Your task to perform on an android device: set default search engine in the chrome app Image 0: 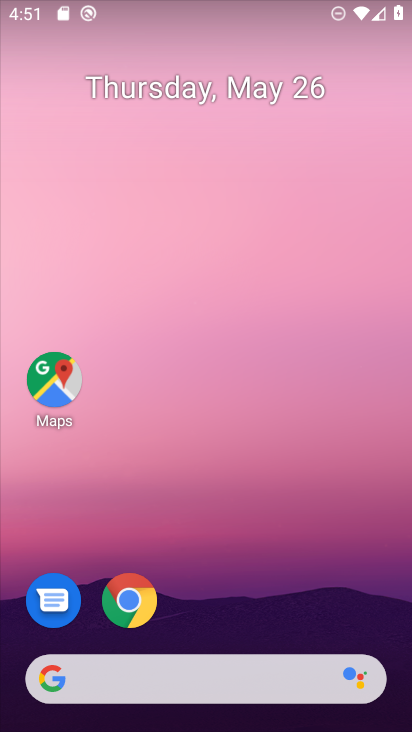
Step 0: click (124, 602)
Your task to perform on an android device: set default search engine in the chrome app Image 1: 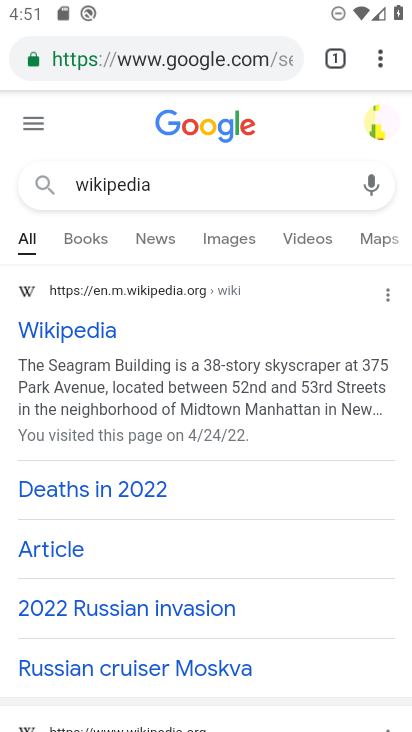
Step 1: click (376, 60)
Your task to perform on an android device: set default search engine in the chrome app Image 2: 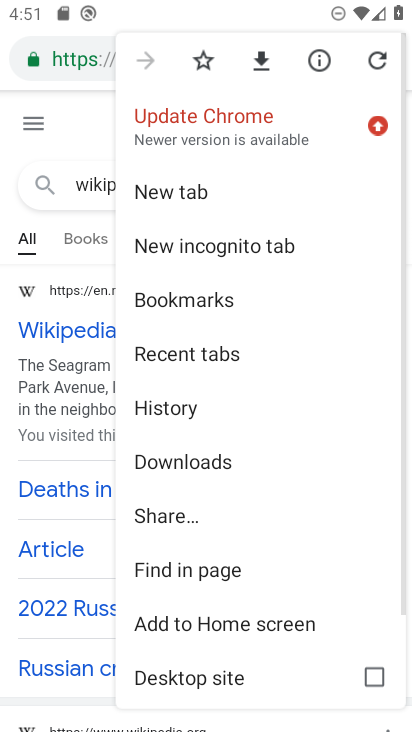
Step 2: drag from (179, 642) to (236, 334)
Your task to perform on an android device: set default search engine in the chrome app Image 3: 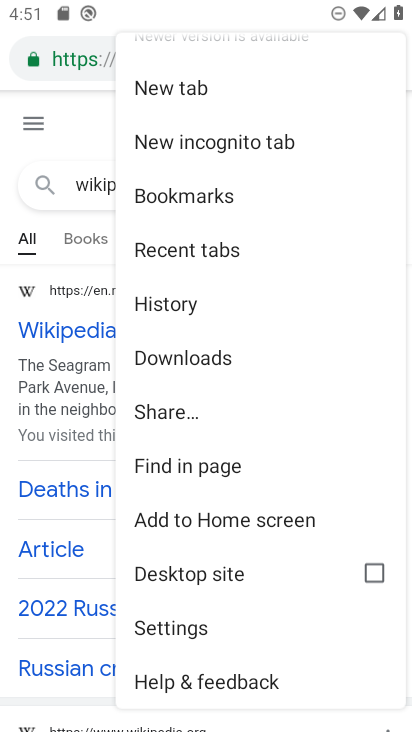
Step 3: click (192, 632)
Your task to perform on an android device: set default search engine in the chrome app Image 4: 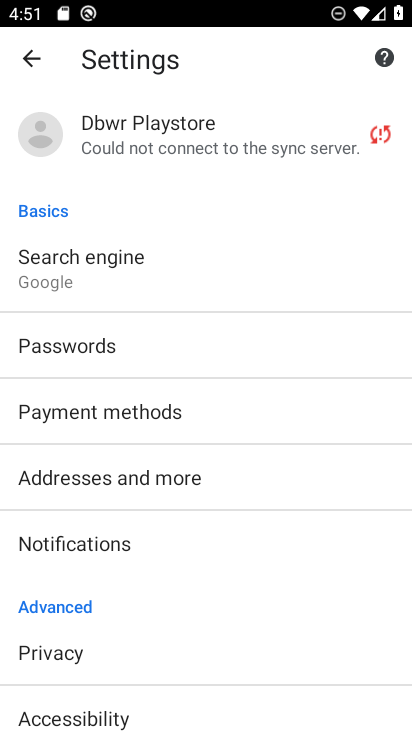
Step 4: click (113, 259)
Your task to perform on an android device: set default search engine in the chrome app Image 5: 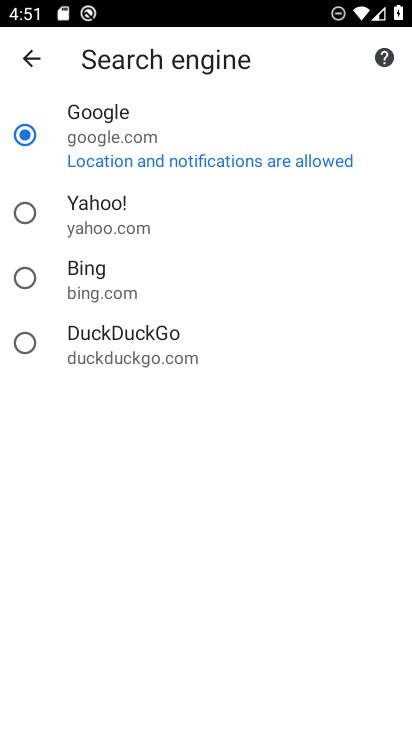
Step 5: click (254, 161)
Your task to perform on an android device: set default search engine in the chrome app Image 6: 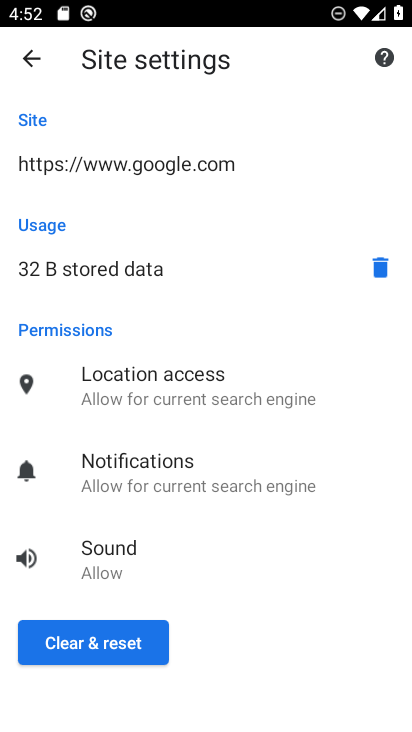
Step 6: click (102, 638)
Your task to perform on an android device: set default search engine in the chrome app Image 7: 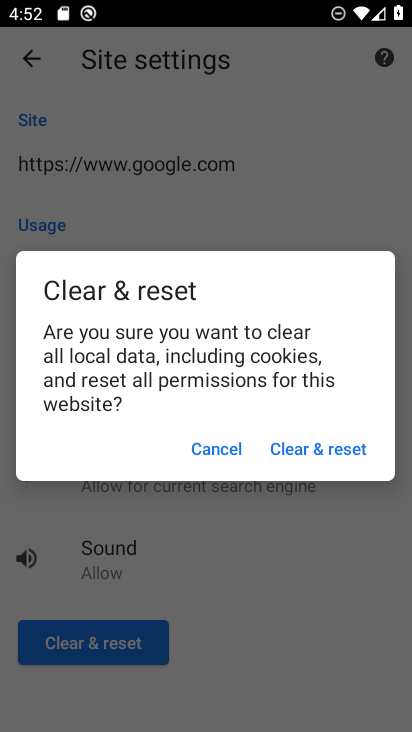
Step 7: click (342, 448)
Your task to perform on an android device: set default search engine in the chrome app Image 8: 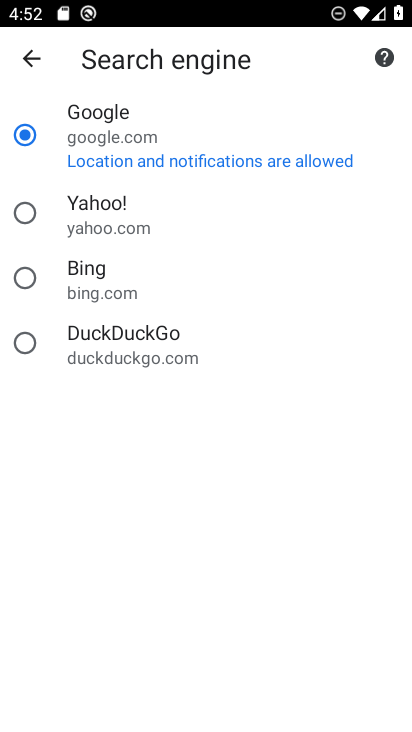
Step 8: task complete